Your task to perform on an android device: Add "dell xps" to the cart on newegg.com Image 0: 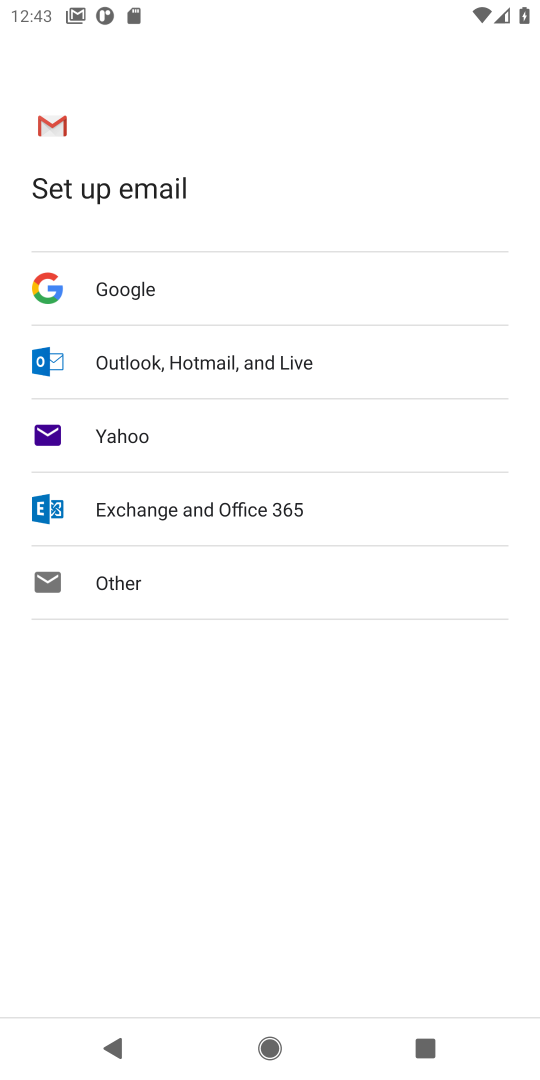
Step 0: press home button
Your task to perform on an android device: Add "dell xps" to the cart on newegg.com Image 1: 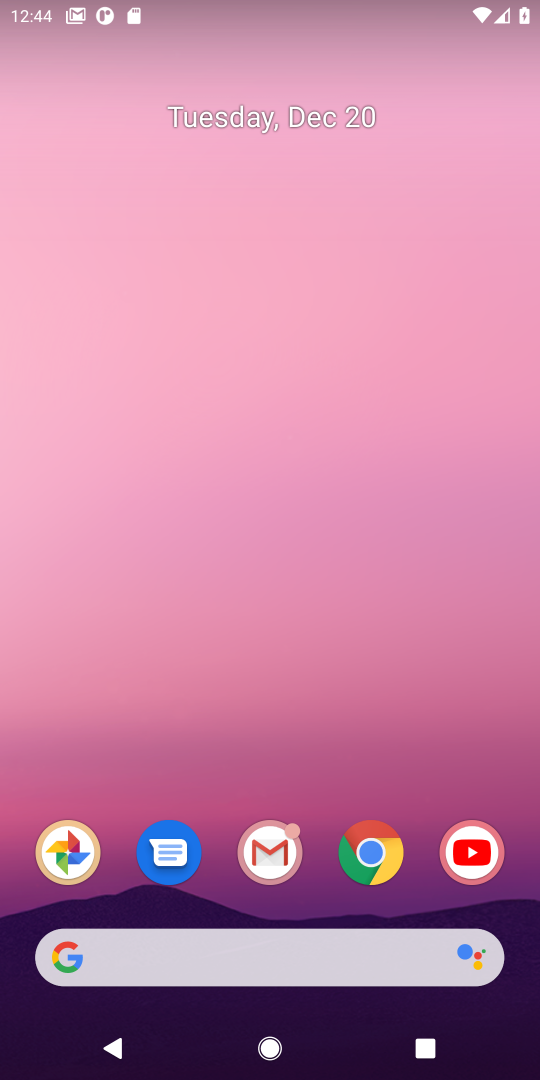
Step 1: click (364, 843)
Your task to perform on an android device: Add "dell xps" to the cart on newegg.com Image 2: 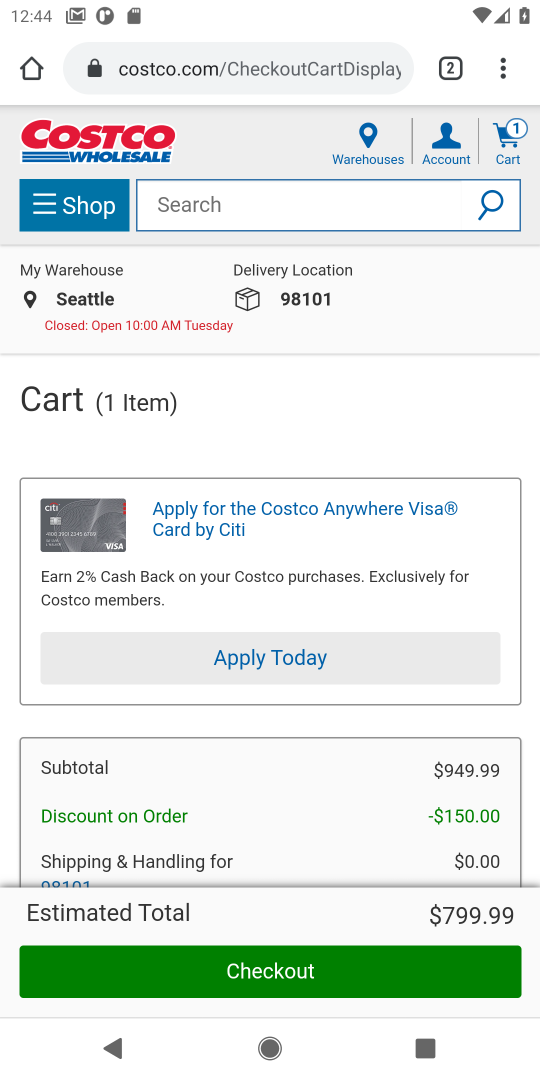
Step 2: click (209, 78)
Your task to perform on an android device: Add "dell xps" to the cart on newegg.com Image 3: 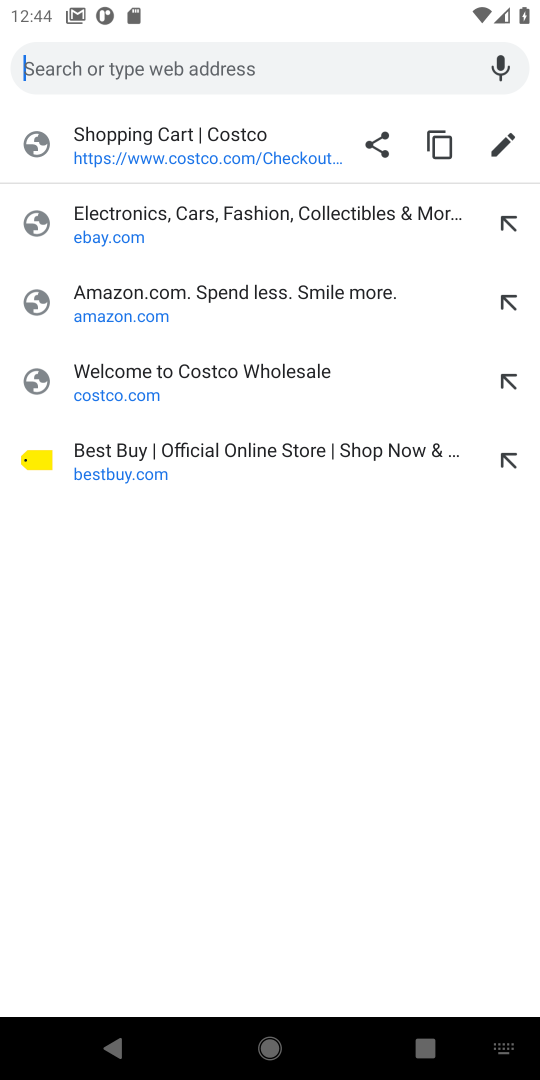
Step 3: type "newegg.com"
Your task to perform on an android device: Add "dell xps" to the cart on newegg.com Image 4: 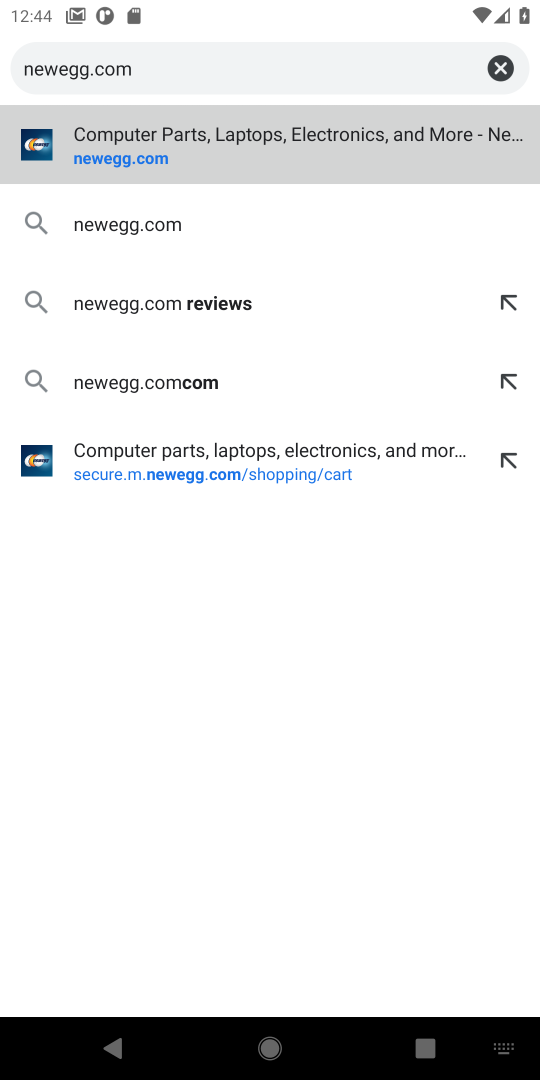
Step 4: click (119, 162)
Your task to perform on an android device: Add "dell xps" to the cart on newegg.com Image 5: 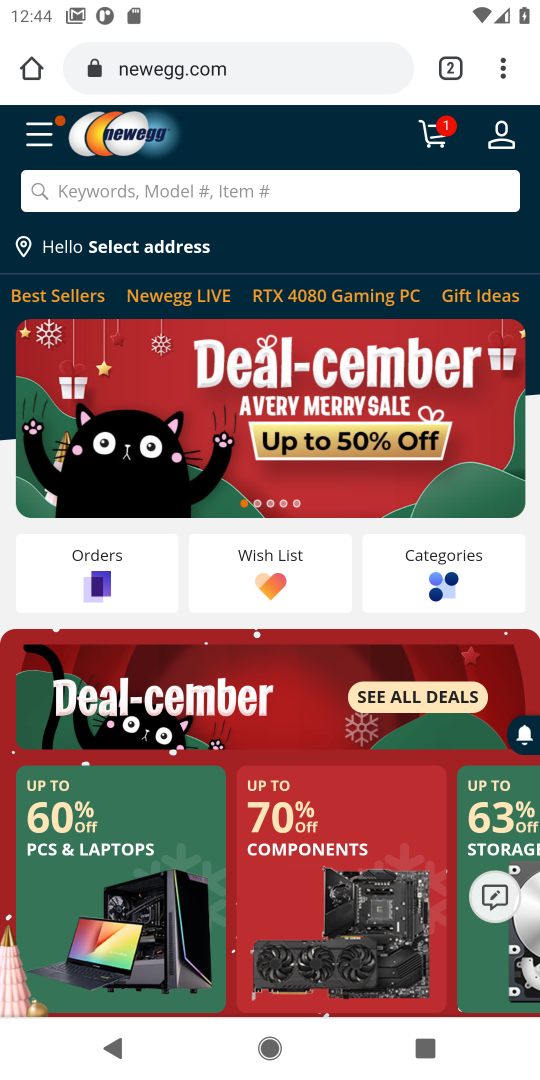
Step 5: click (118, 197)
Your task to perform on an android device: Add "dell xps" to the cart on newegg.com Image 6: 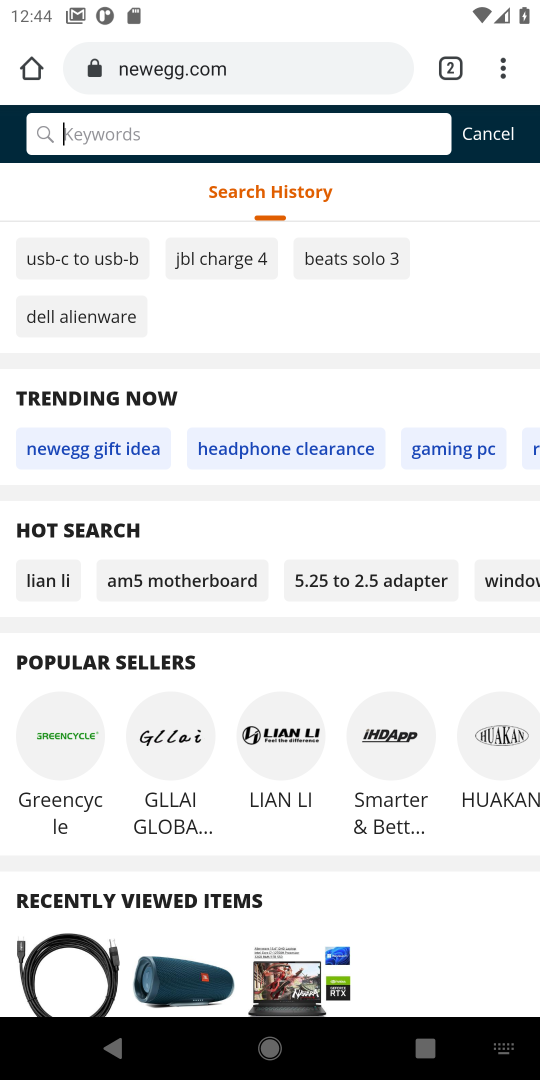
Step 6: type "dell xps "
Your task to perform on an android device: Add "dell xps" to the cart on newegg.com Image 7: 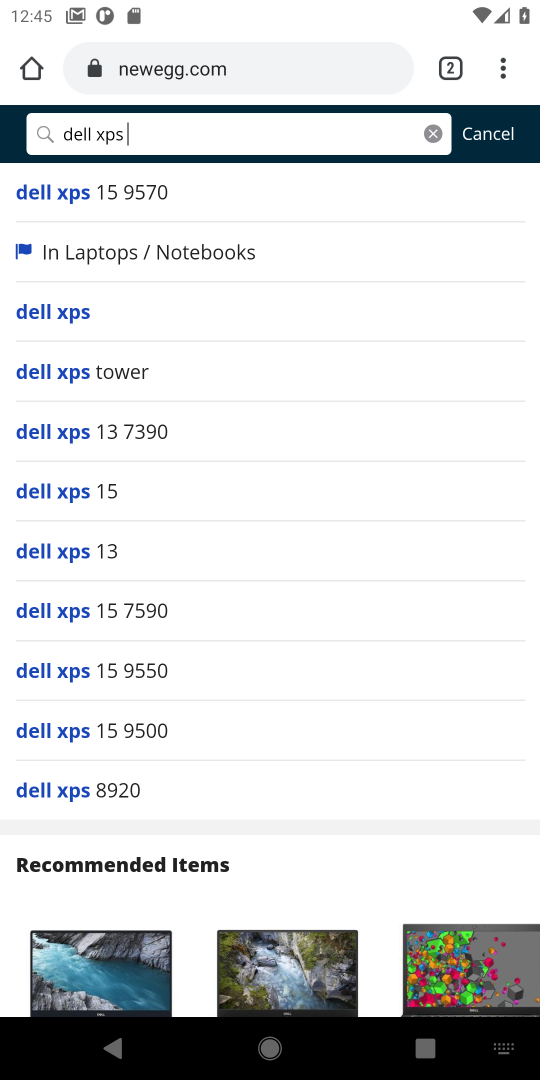
Step 7: click (56, 323)
Your task to perform on an android device: Add "dell xps" to the cart on newegg.com Image 8: 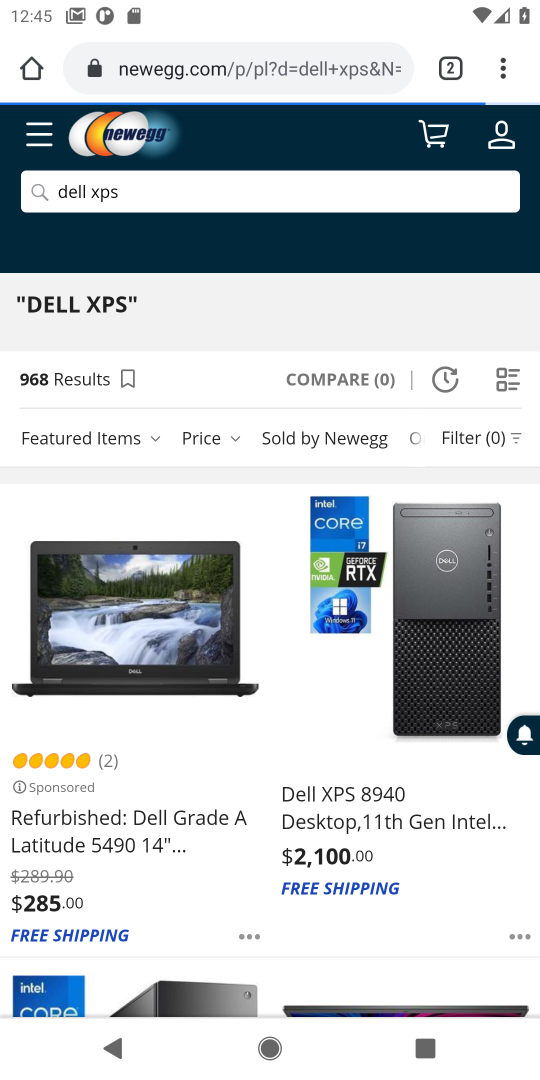
Step 8: drag from (156, 679) to (168, 444)
Your task to perform on an android device: Add "dell xps" to the cart on newegg.com Image 9: 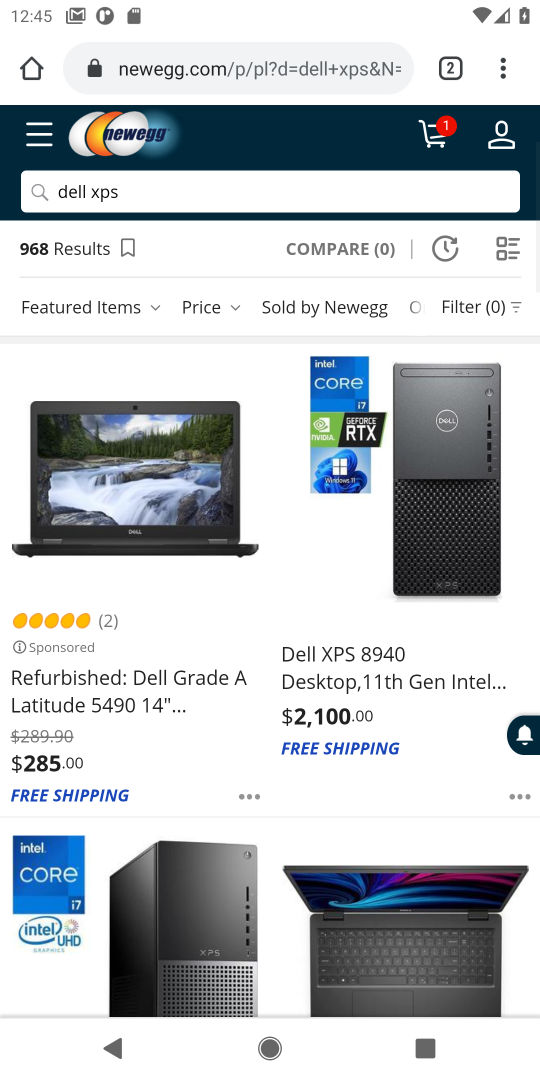
Step 9: click (393, 684)
Your task to perform on an android device: Add "dell xps" to the cart on newegg.com Image 10: 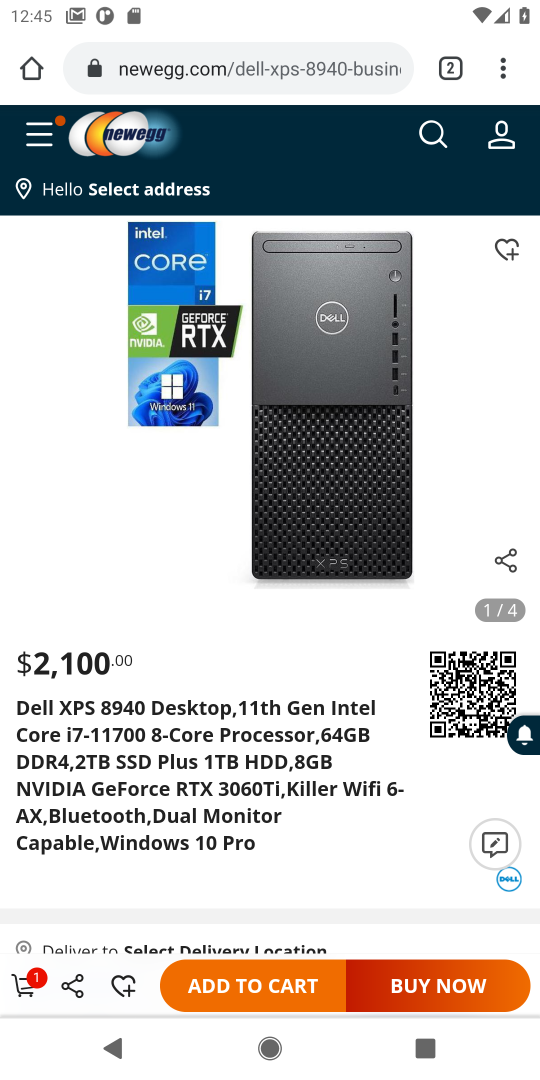
Step 10: click (238, 981)
Your task to perform on an android device: Add "dell xps" to the cart on newegg.com Image 11: 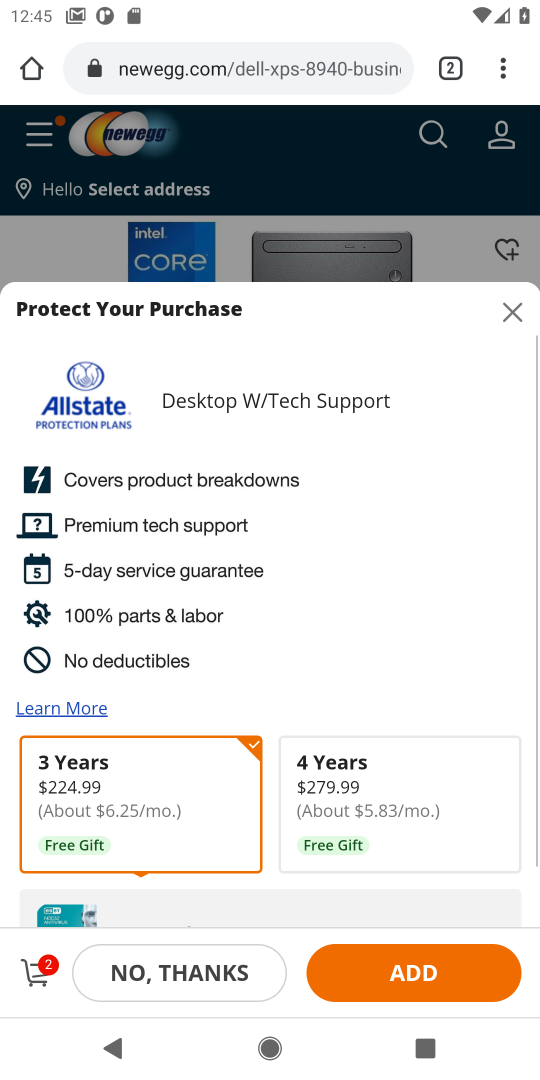
Step 11: task complete